Your task to perform on an android device: Clear the cart on amazon.com. Image 0: 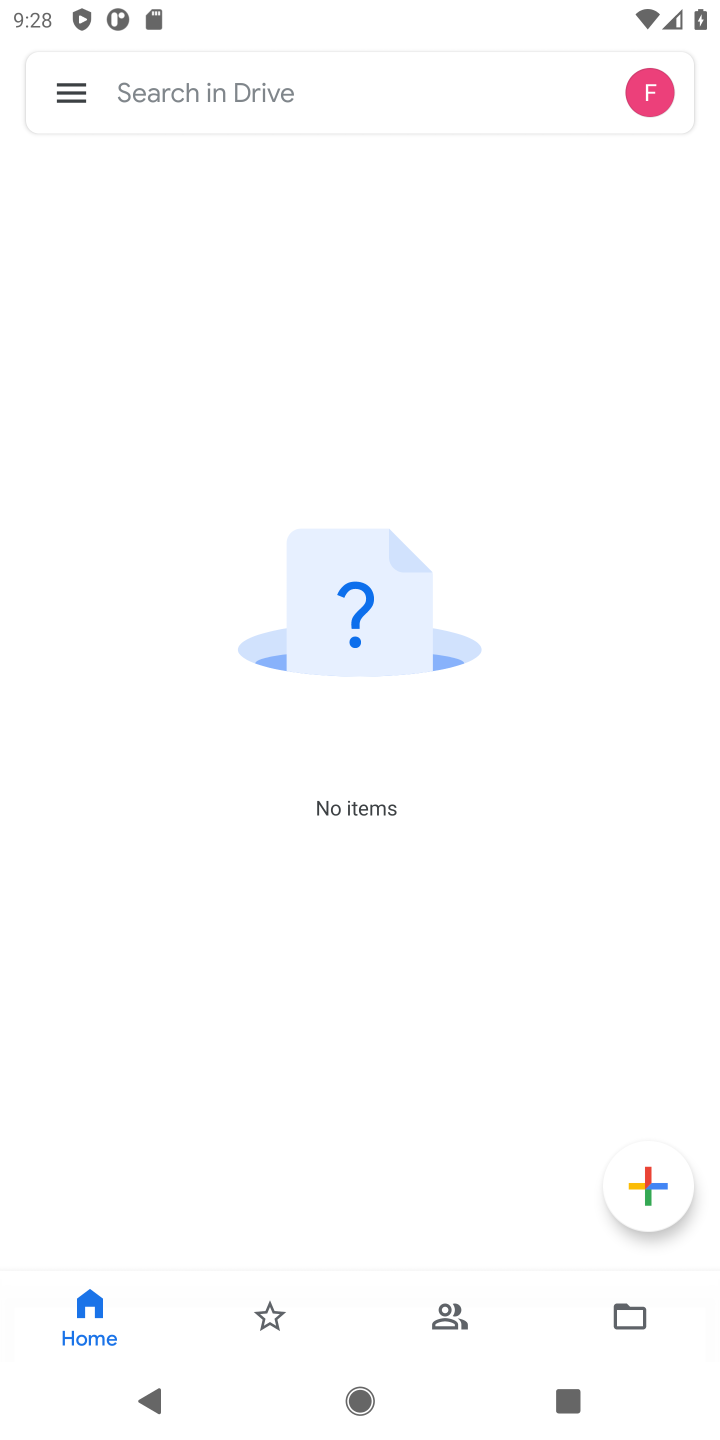
Step 0: press home button
Your task to perform on an android device: Clear the cart on amazon.com. Image 1: 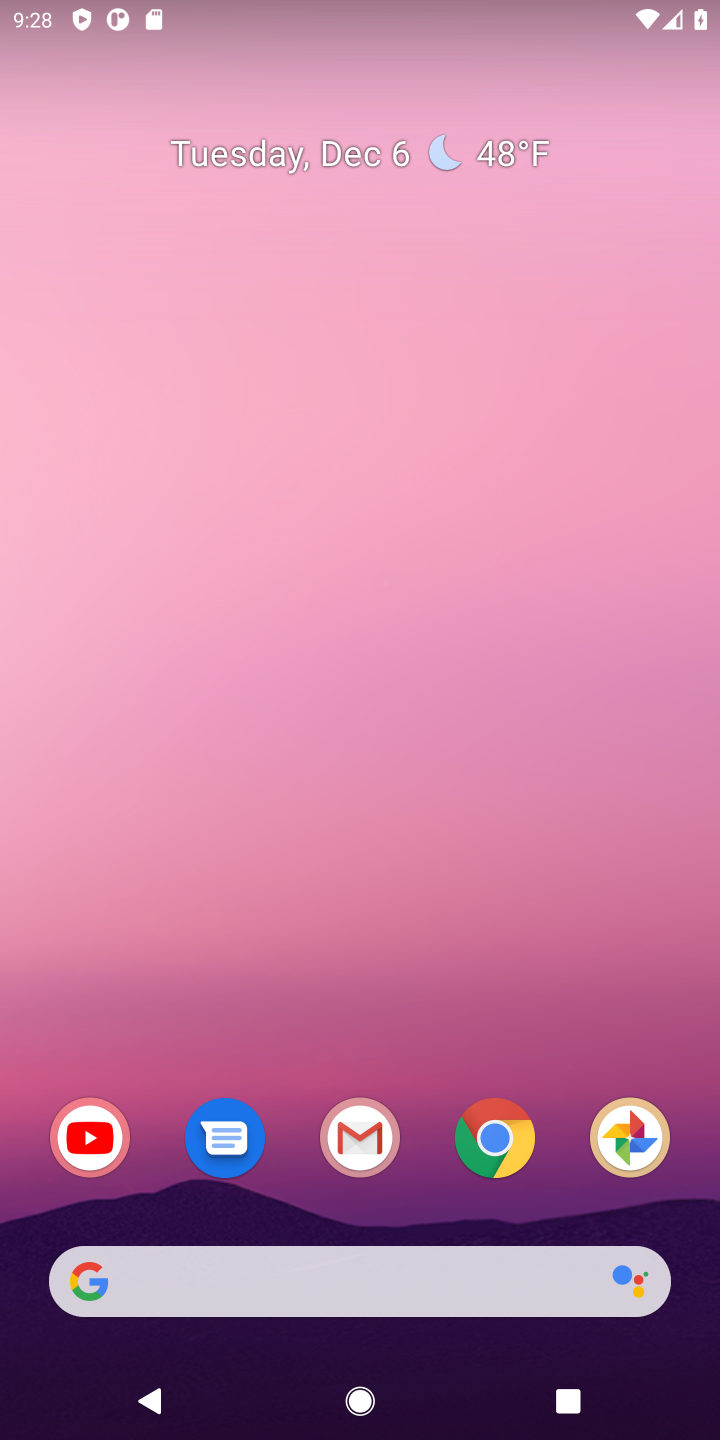
Step 1: click (494, 1153)
Your task to perform on an android device: Clear the cart on amazon.com. Image 2: 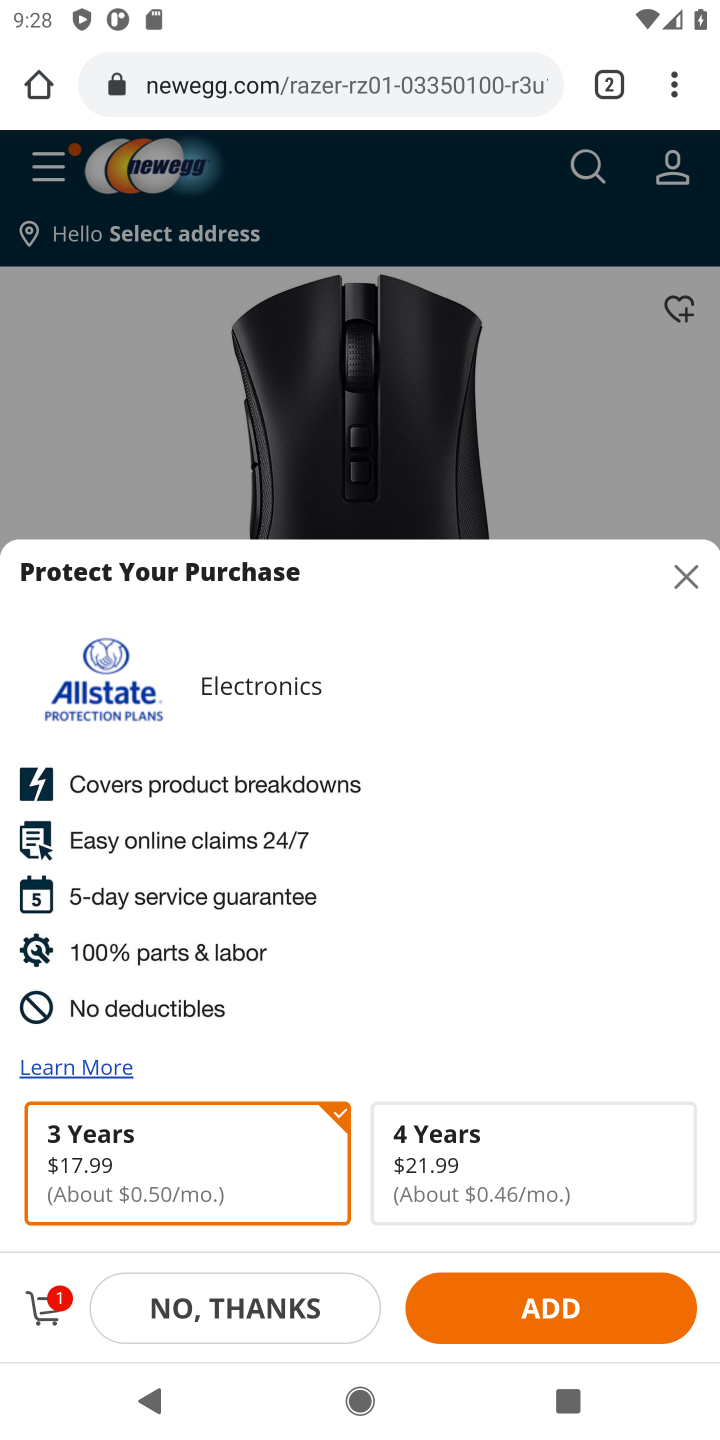
Step 2: click (310, 99)
Your task to perform on an android device: Clear the cart on amazon.com. Image 3: 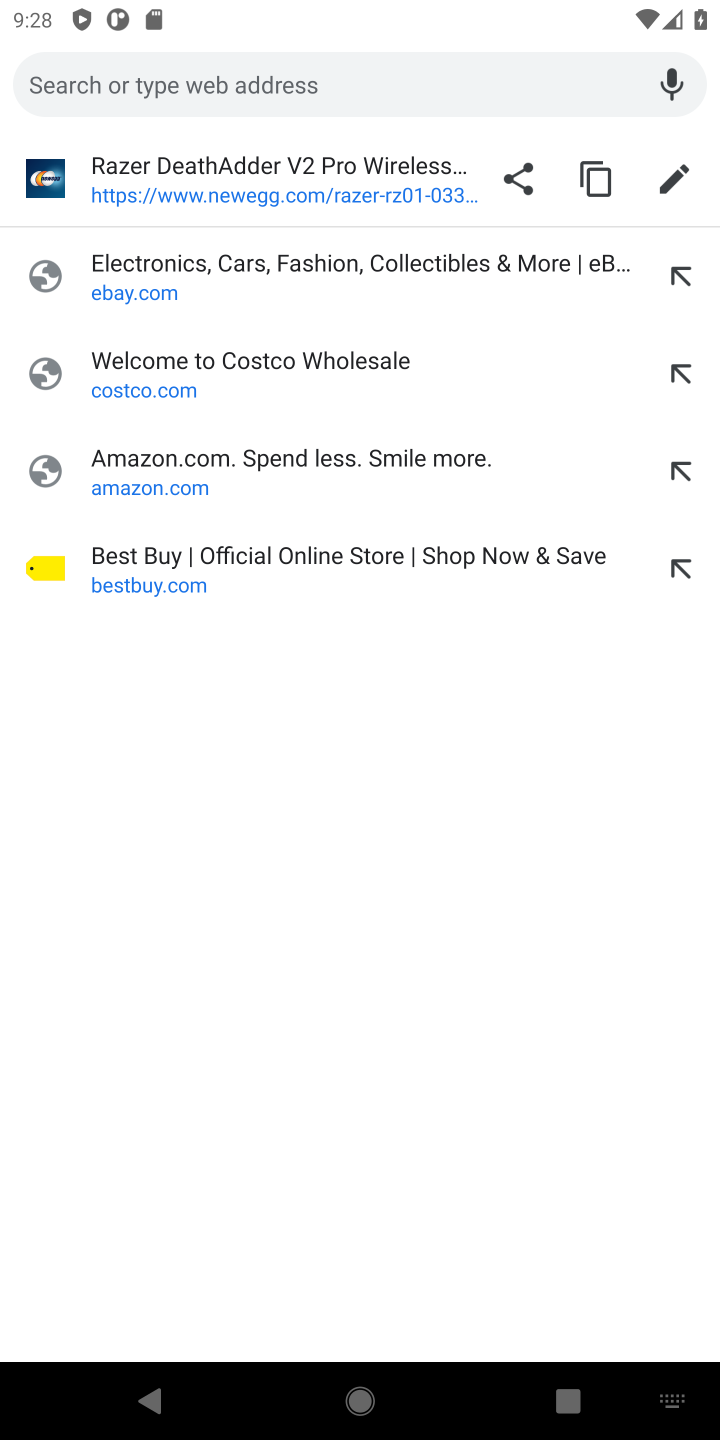
Step 3: click (131, 475)
Your task to perform on an android device: Clear the cart on amazon.com. Image 4: 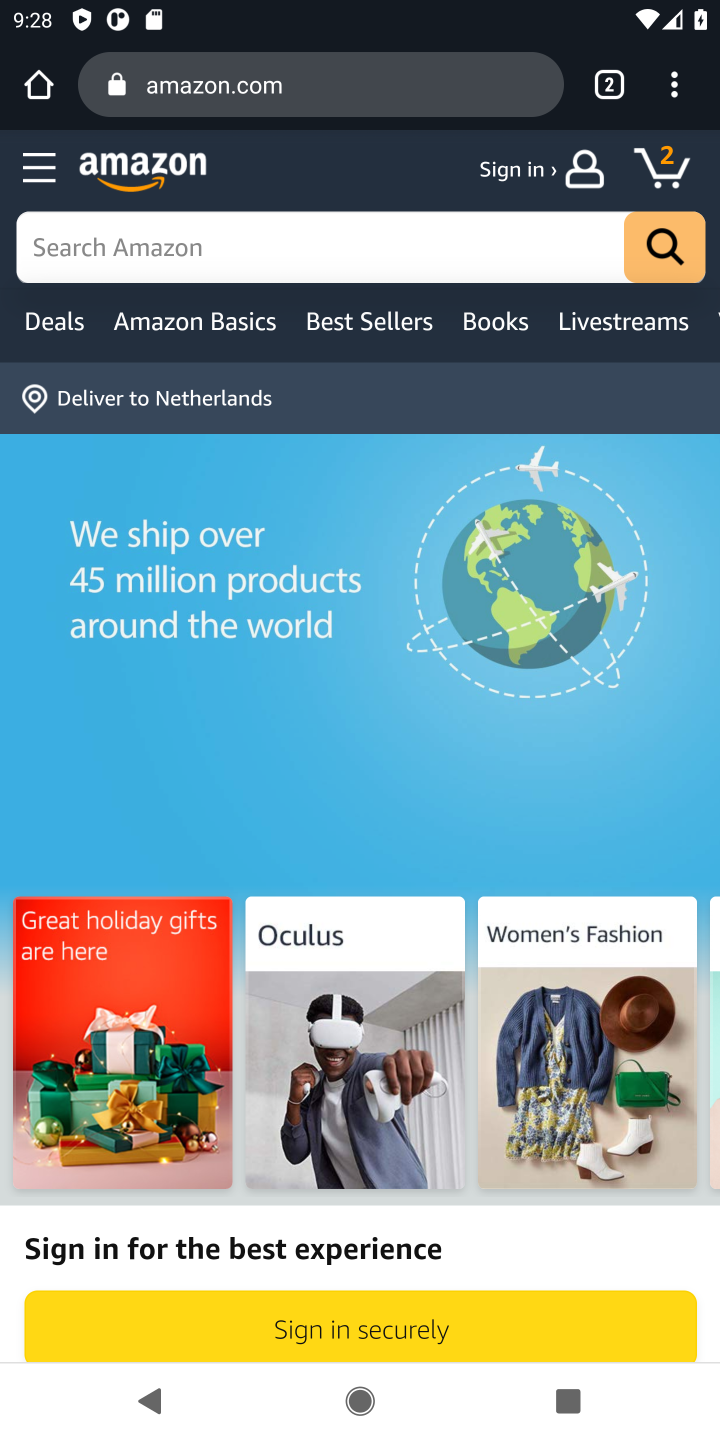
Step 4: click (667, 172)
Your task to perform on an android device: Clear the cart on amazon.com. Image 5: 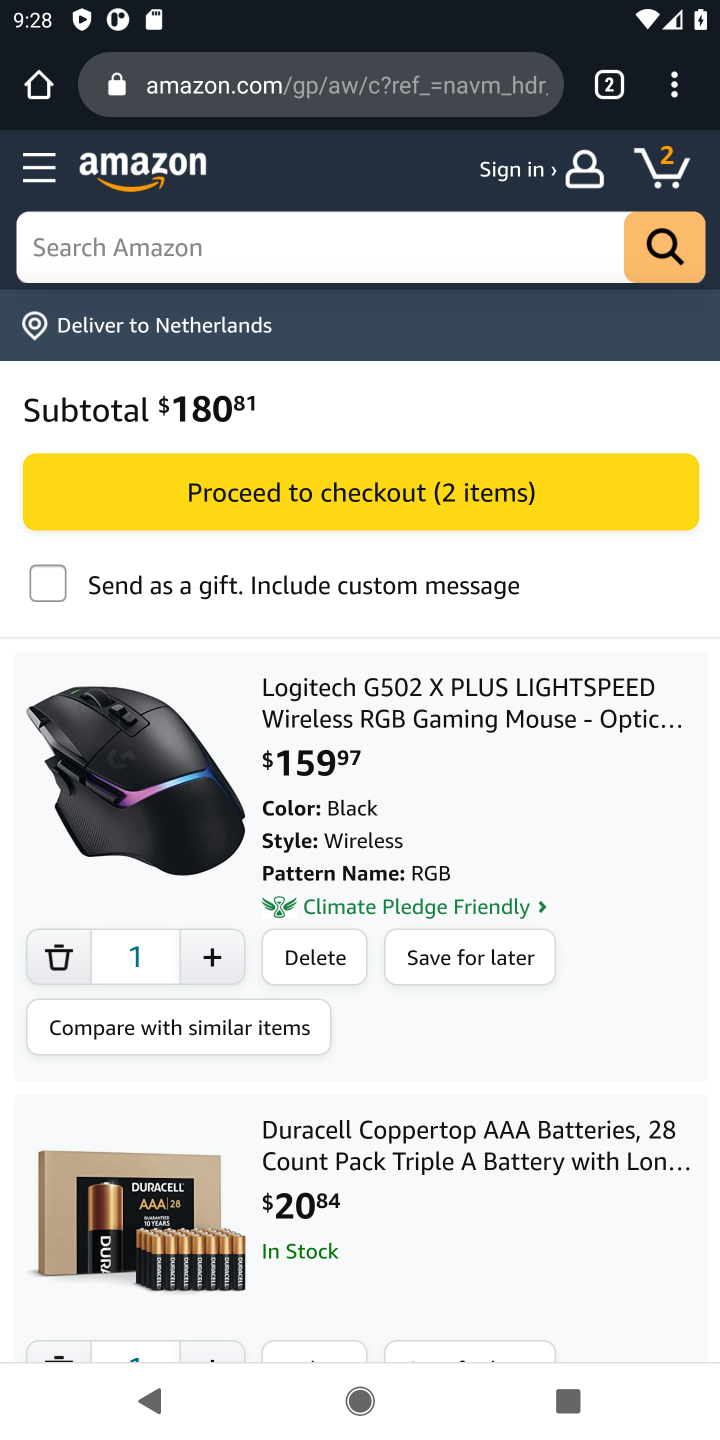
Step 5: click (317, 959)
Your task to perform on an android device: Clear the cart on amazon.com. Image 6: 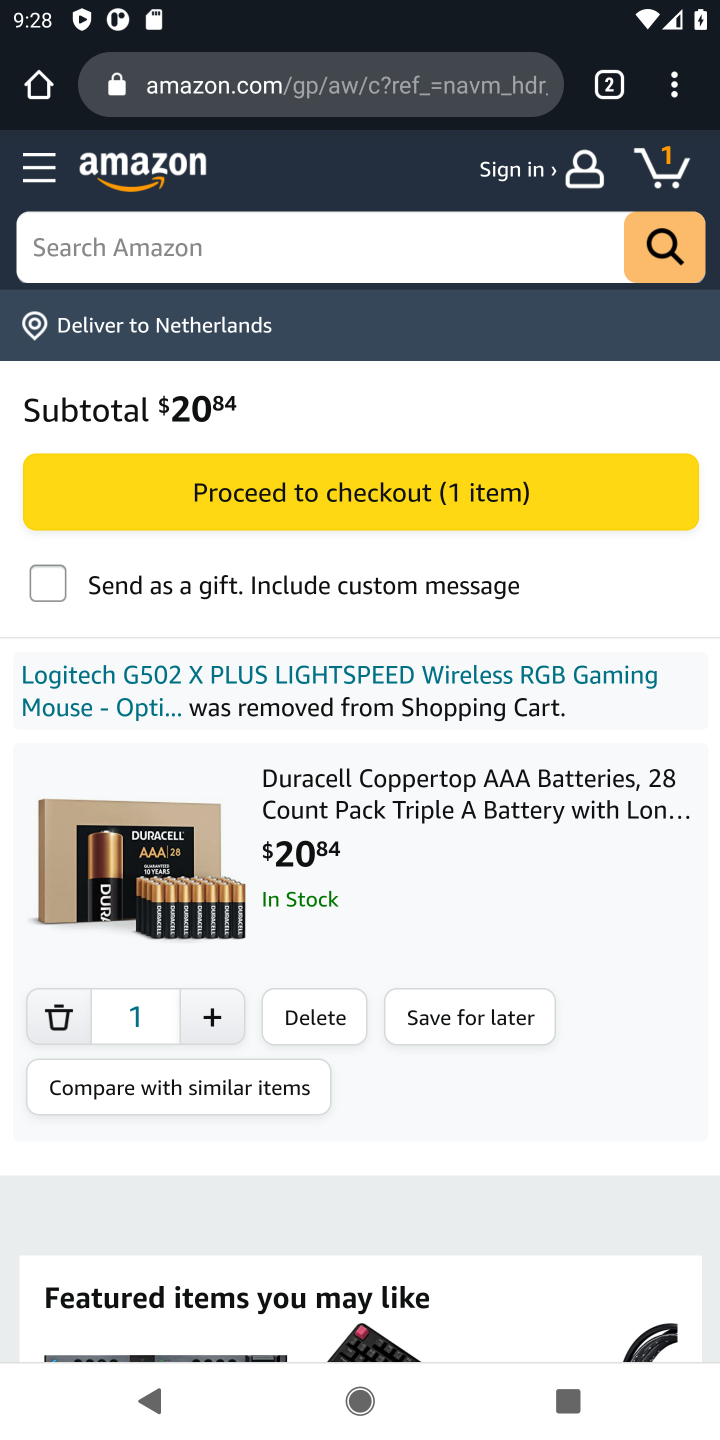
Step 6: click (314, 1017)
Your task to perform on an android device: Clear the cart on amazon.com. Image 7: 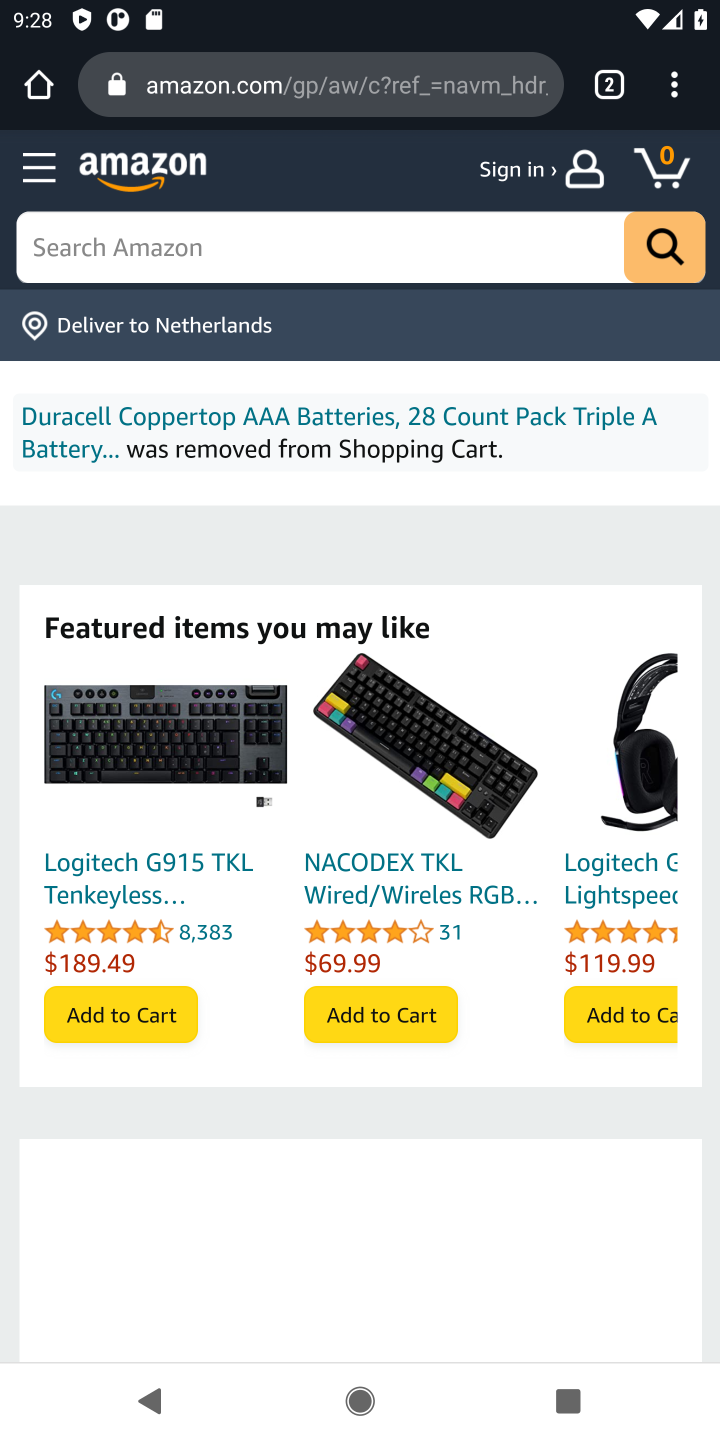
Step 7: task complete